Your task to perform on an android device: Open wifi settings Image 0: 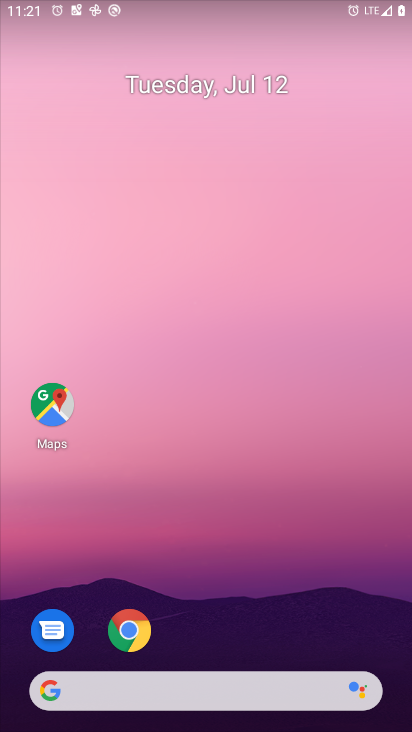
Step 0: press home button
Your task to perform on an android device: Open wifi settings Image 1: 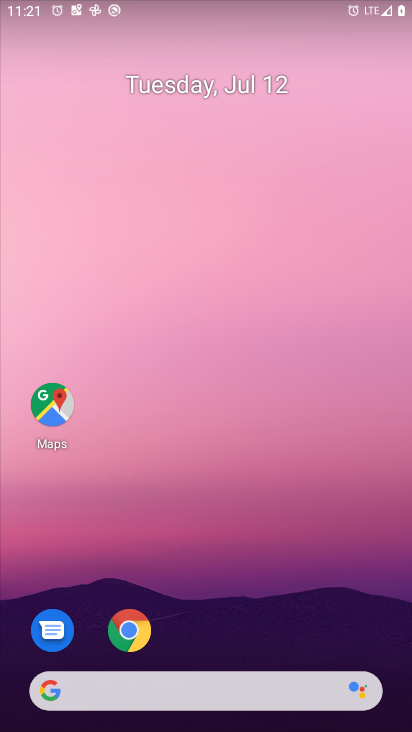
Step 1: drag from (244, 658) to (263, 4)
Your task to perform on an android device: Open wifi settings Image 2: 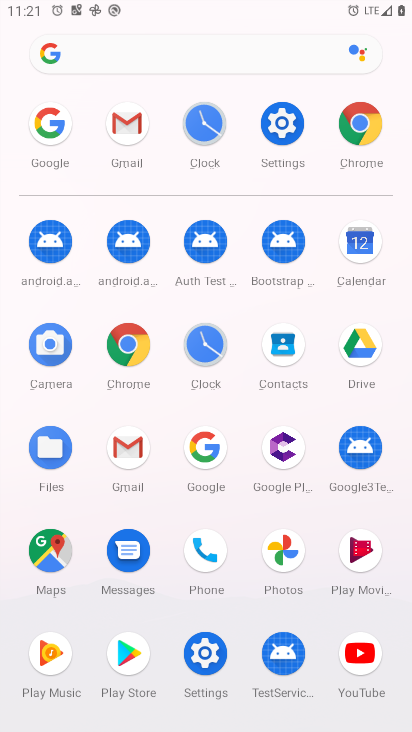
Step 2: click (291, 127)
Your task to perform on an android device: Open wifi settings Image 3: 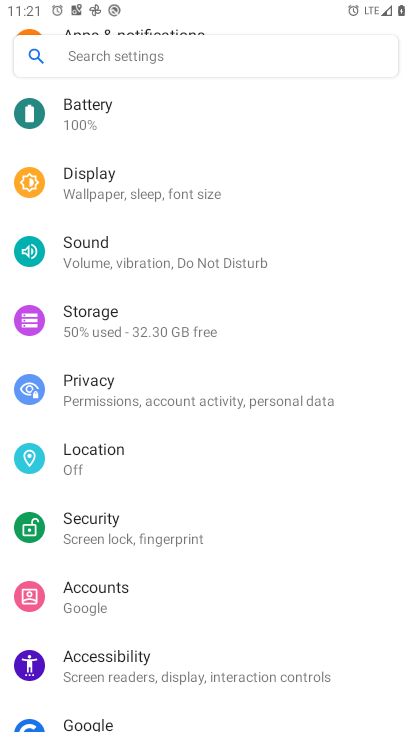
Step 3: drag from (244, 128) to (276, 662)
Your task to perform on an android device: Open wifi settings Image 4: 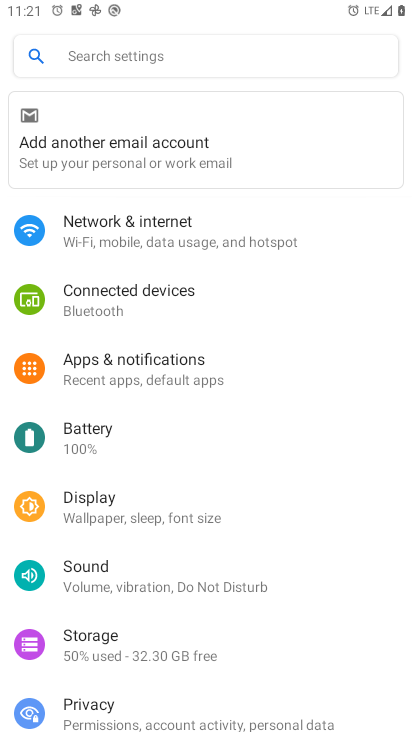
Step 4: click (129, 236)
Your task to perform on an android device: Open wifi settings Image 5: 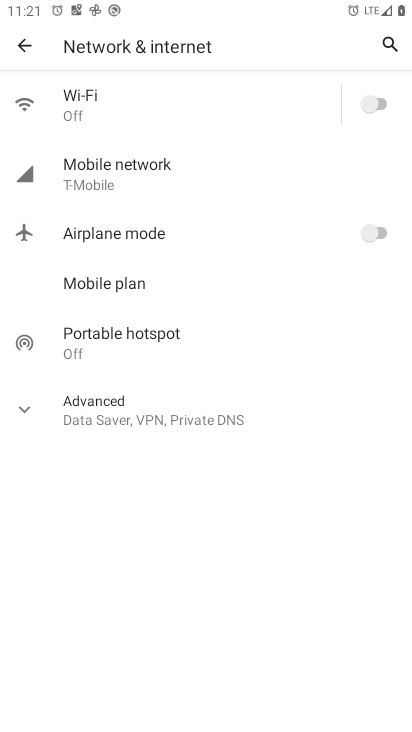
Step 5: click (92, 91)
Your task to perform on an android device: Open wifi settings Image 6: 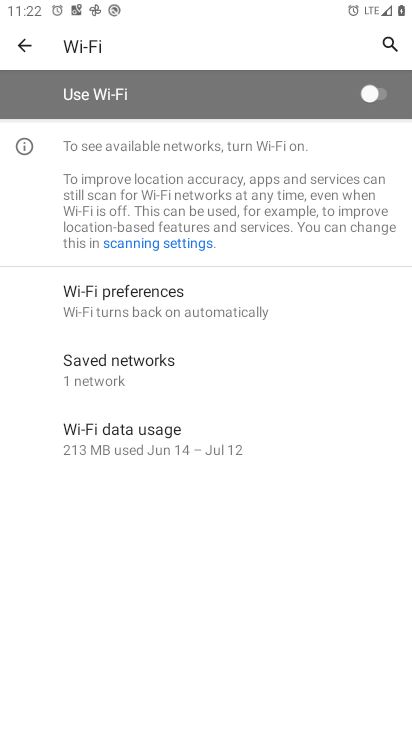
Step 6: click (96, 94)
Your task to perform on an android device: Open wifi settings Image 7: 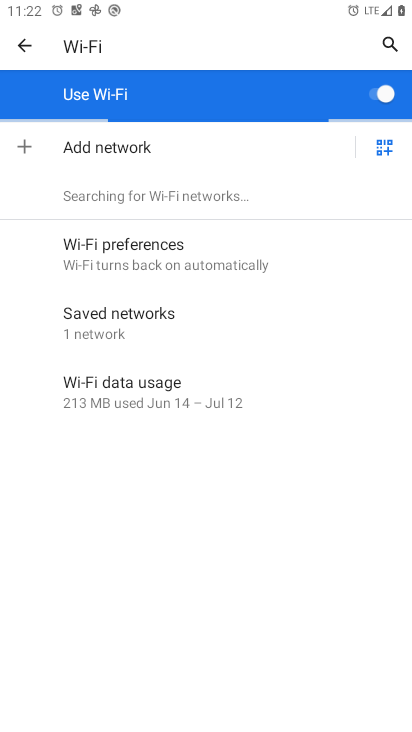
Step 7: task complete